Your task to perform on an android device: toggle pop-ups in chrome Image 0: 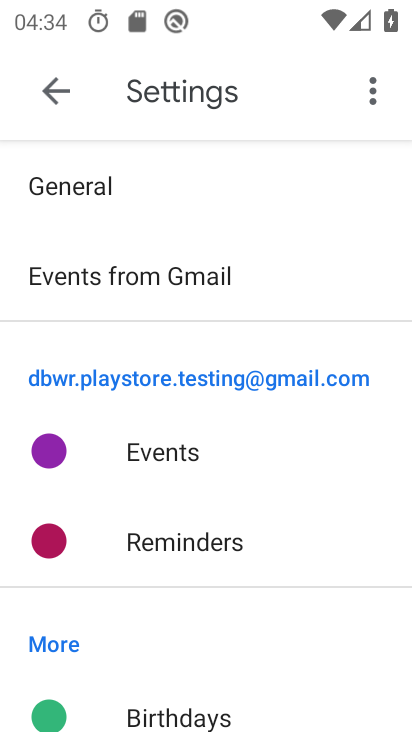
Step 0: press back button
Your task to perform on an android device: toggle pop-ups in chrome Image 1: 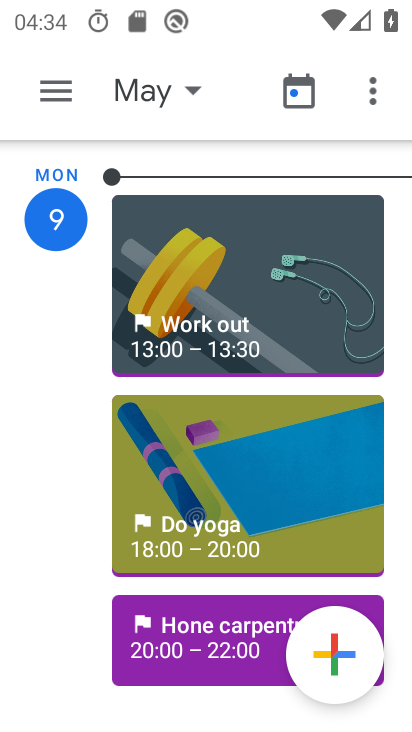
Step 1: press home button
Your task to perform on an android device: toggle pop-ups in chrome Image 2: 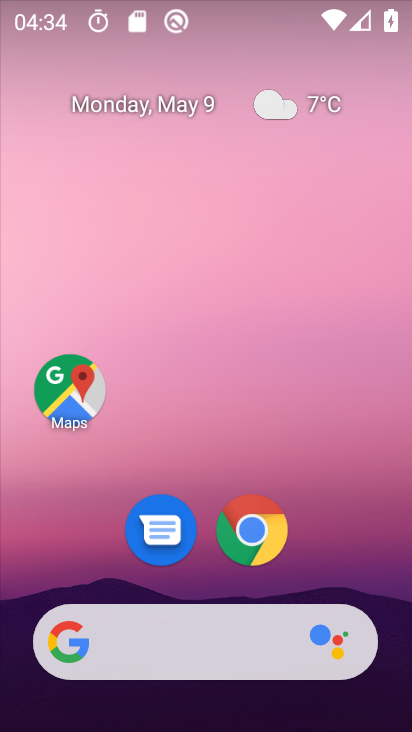
Step 2: click (252, 543)
Your task to perform on an android device: toggle pop-ups in chrome Image 3: 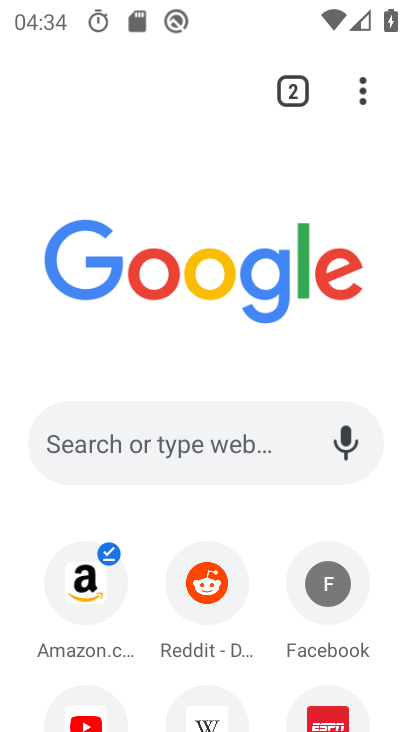
Step 3: drag from (362, 84) to (128, 544)
Your task to perform on an android device: toggle pop-ups in chrome Image 4: 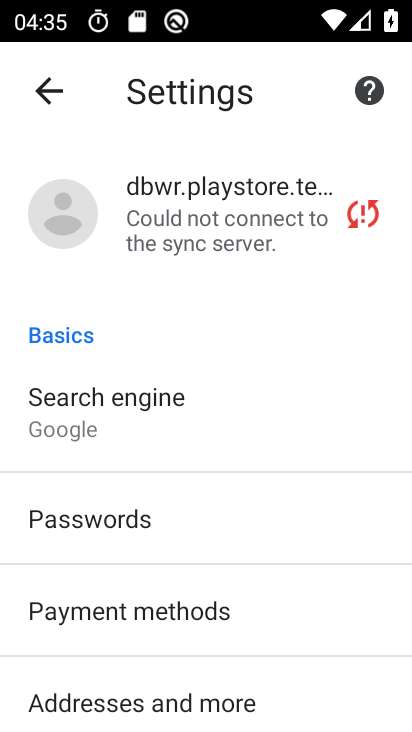
Step 4: drag from (148, 664) to (378, 44)
Your task to perform on an android device: toggle pop-ups in chrome Image 5: 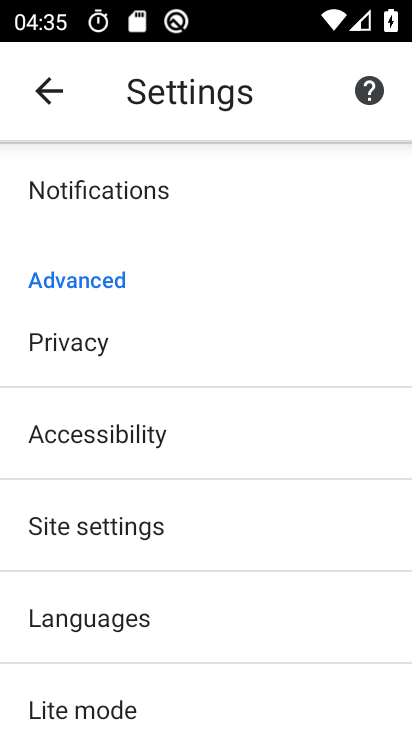
Step 5: click (111, 530)
Your task to perform on an android device: toggle pop-ups in chrome Image 6: 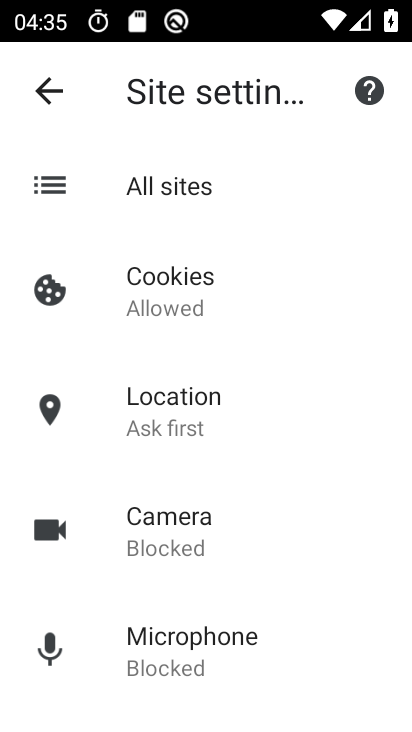
Step 6: drag from (169, 666) to (304, 95)
Your task to perform on an android device: toggle pop-ups in chrome Image 7: 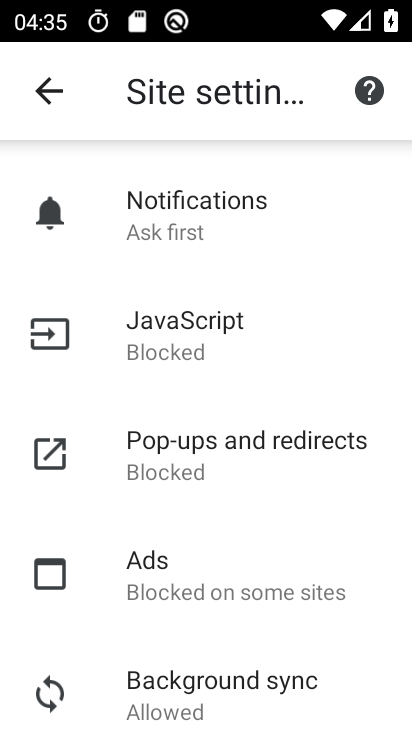
Step 7: click (178, 457)
Your task to perform on an android device: toggle pop-ups in chrome Image 8: 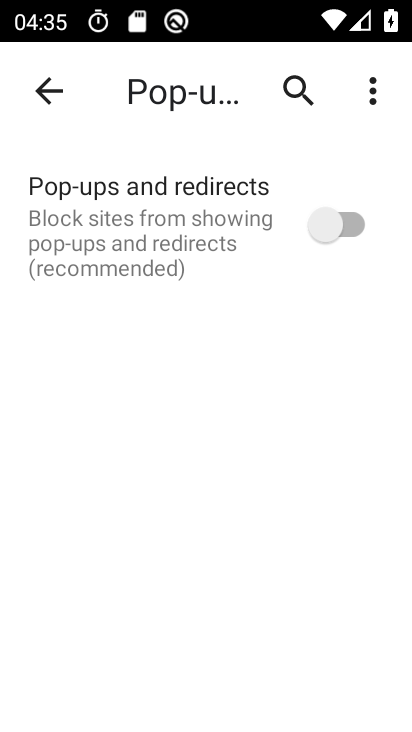
Step 8: click (322, 220)
Your task to perform on an android device: toggle pop-ups in chrome Image 9: 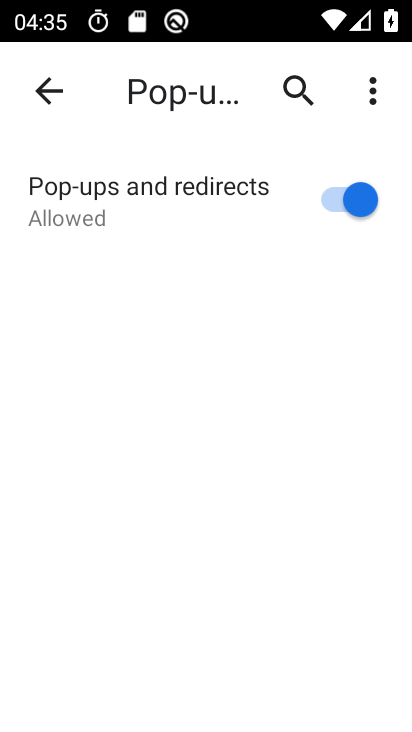
Step 9: task complete